Your task to perform on an android device: Go to battery settings Image 0: 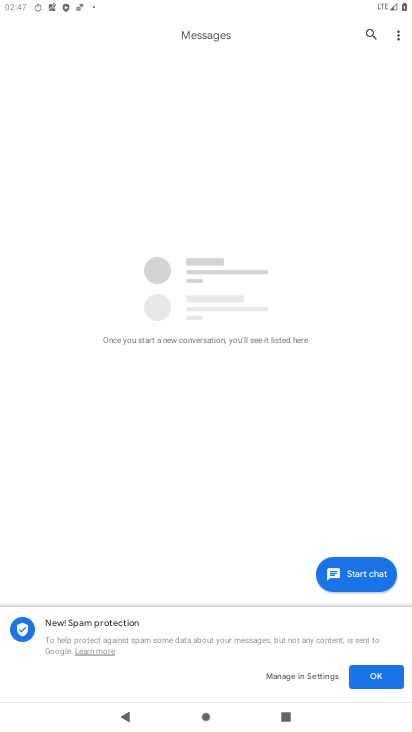
Step 0: press home button
Your task to perform on an android device: Go to battery settings Image 1: 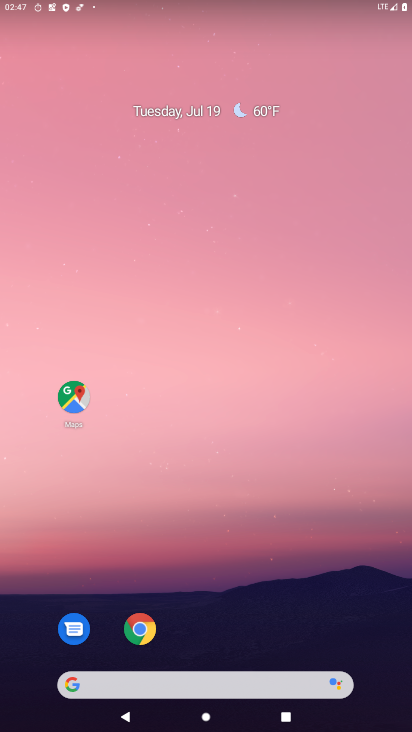
Step 1: drag from (204, 618) to (254, 147)
Your task to perform on an android device: Go to battery settings Image 2: 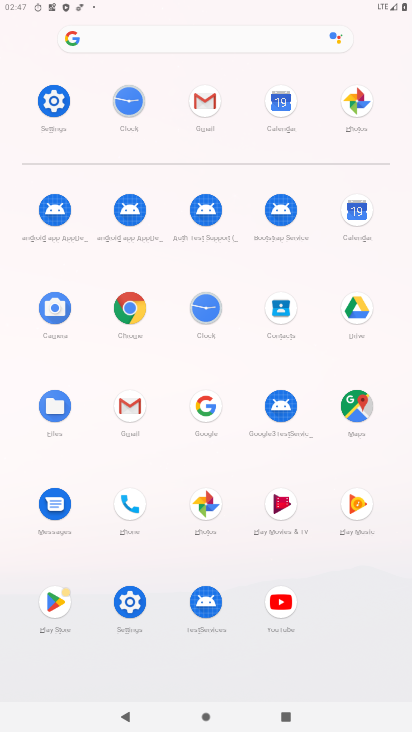
Step 2: click (69, 101)
Your task to perform on an android device: Go to battery settings Image 3: 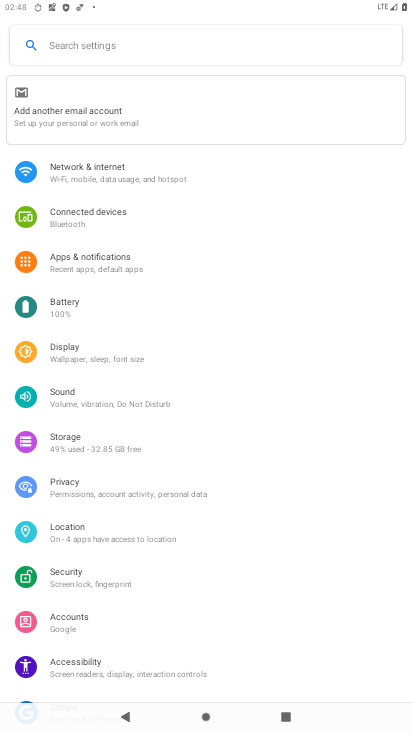
Step 3: click (83, 316)
Your task to perform on an android device: Go to battery settings Image 4: 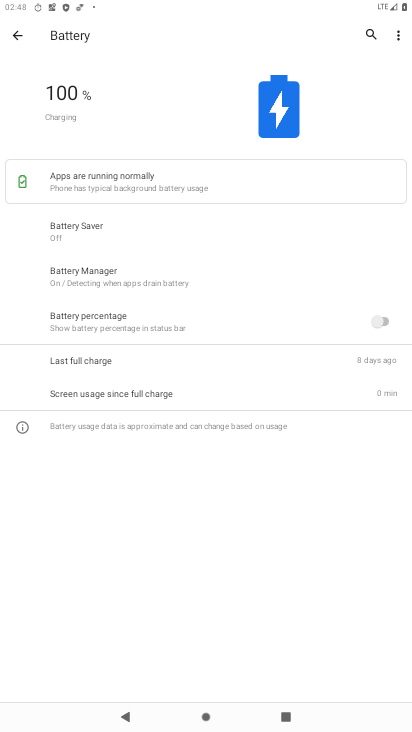
Step 4: task complete